Your task to perform on an android device: toggle javascript in the chrome app Image 0: 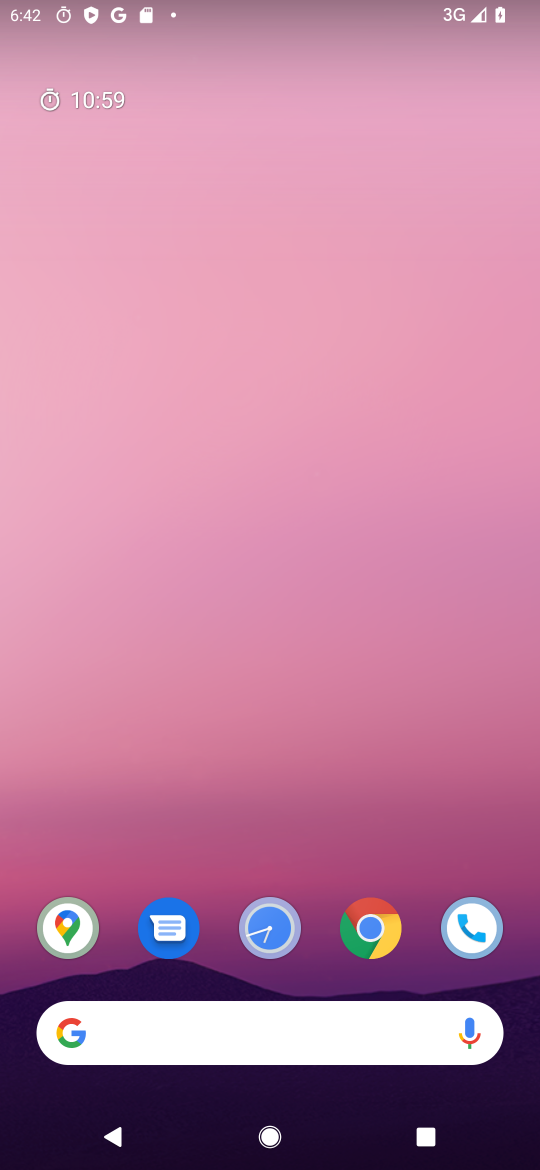
Step 0: drag from (318, 770) to (333, 124)
Your task to perform on an android device: toggle javascript in the chrome app Image 1: 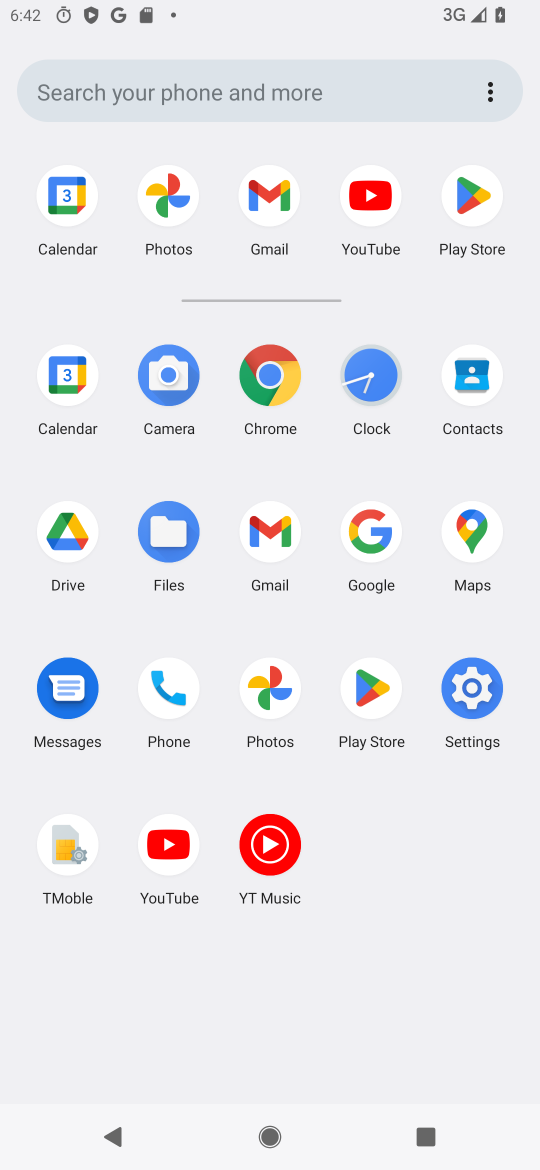
Step 1: click (277, 373)
Your task to perform on an android device: toggle javascript in the chrome app Image 2: 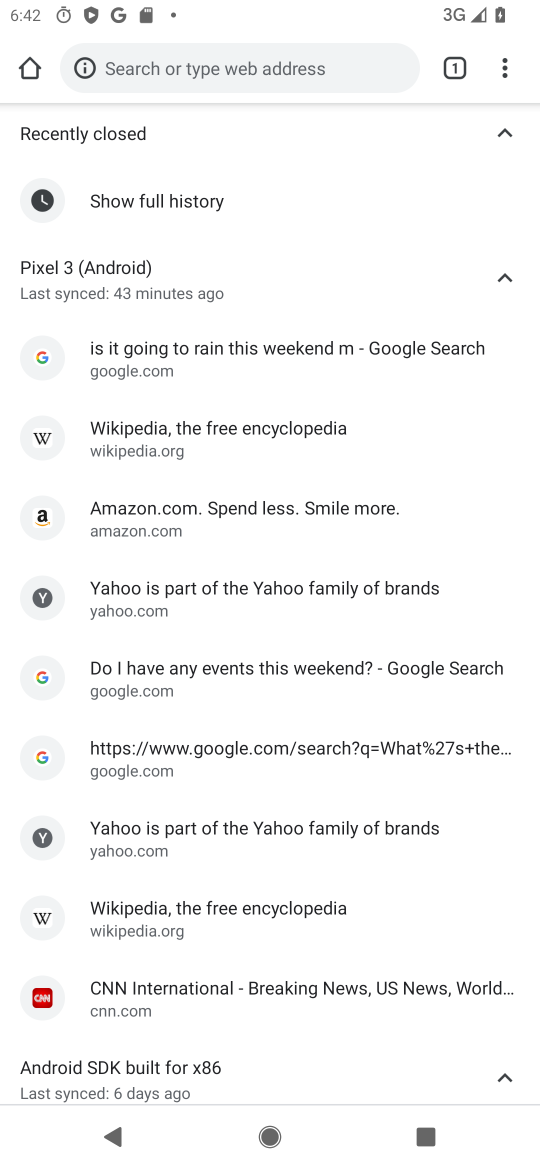
Step 2: click (504, 74)
Your task to perform on an android device: toggle javascript in the chrome app Image 3: 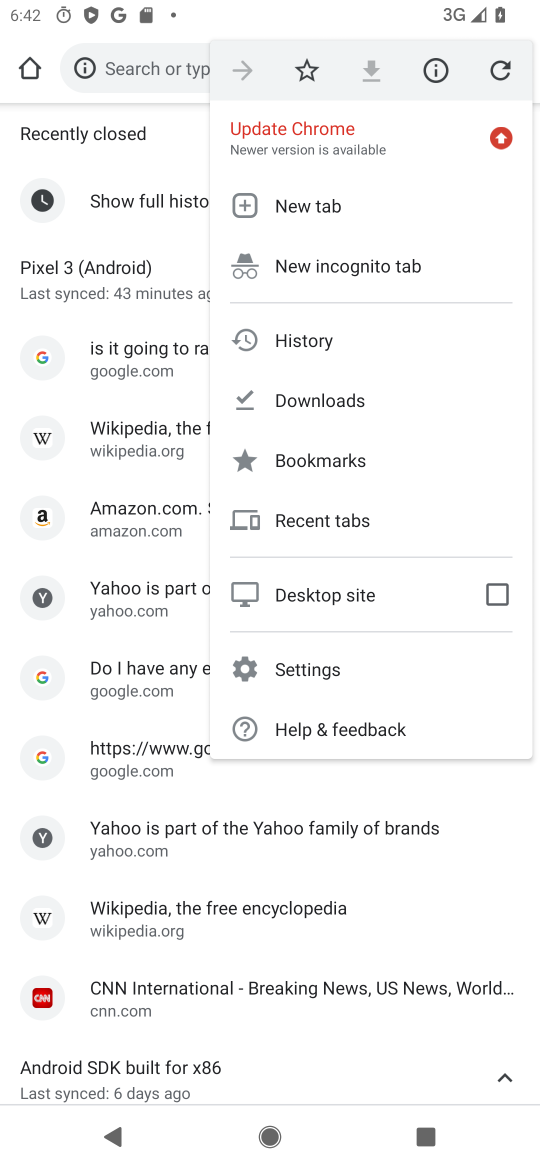
Step 3: click (341, 676)
Your task to perform on an android device: toggle javascript in the chrome app Image 4: 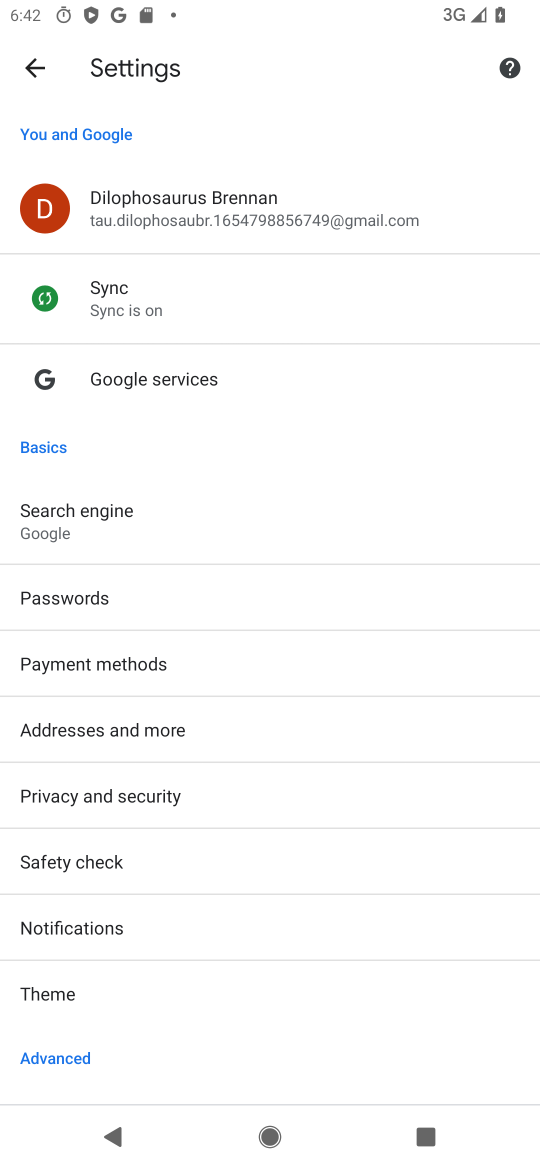
Step 4: drag from (368, 785) to (382, 699)
Your task to perform on an android device: toggle javascript in the chrome app Image 5: 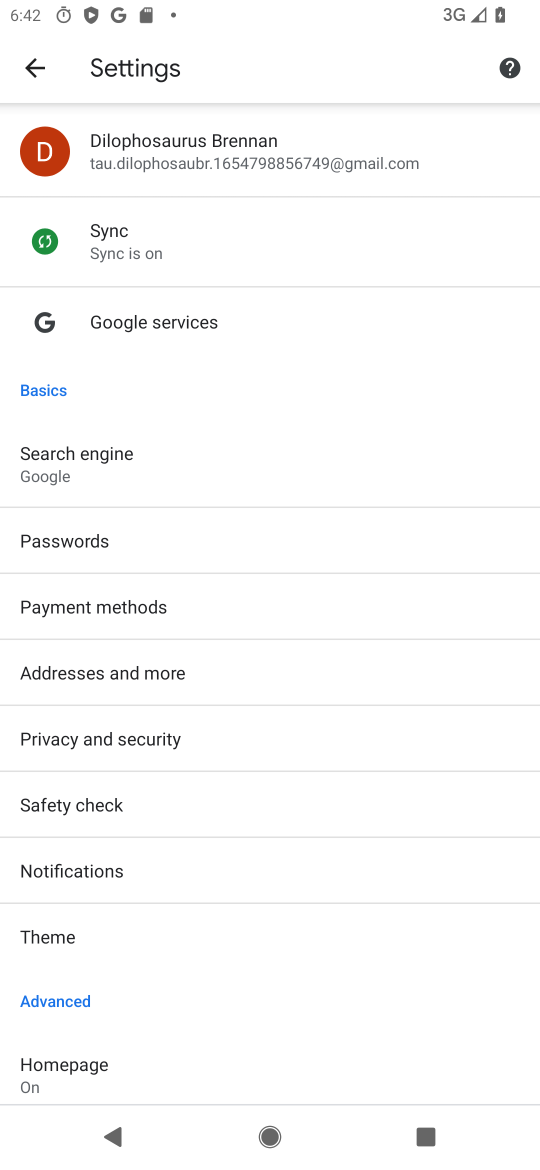
Step 5: drag from (379, 897) to (396, 729)
Your task to perform on an android device: toggle javascript in the chrome app Image 6: 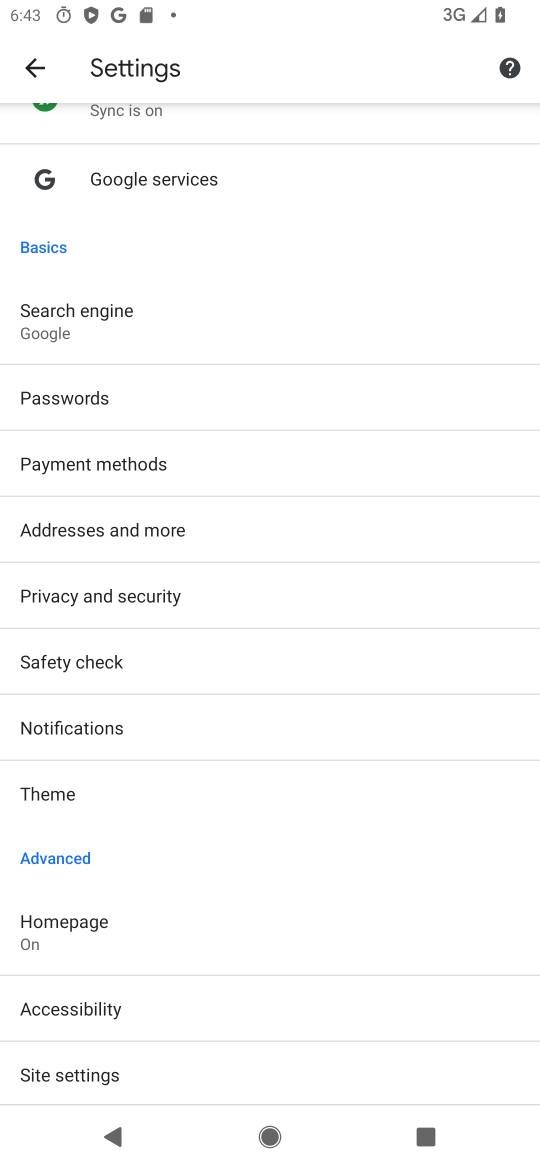
Step 6: drag from (379, 904) to (395, 682)
Your task to perform on an android device: toggle javascript in the chrome app Image 7: 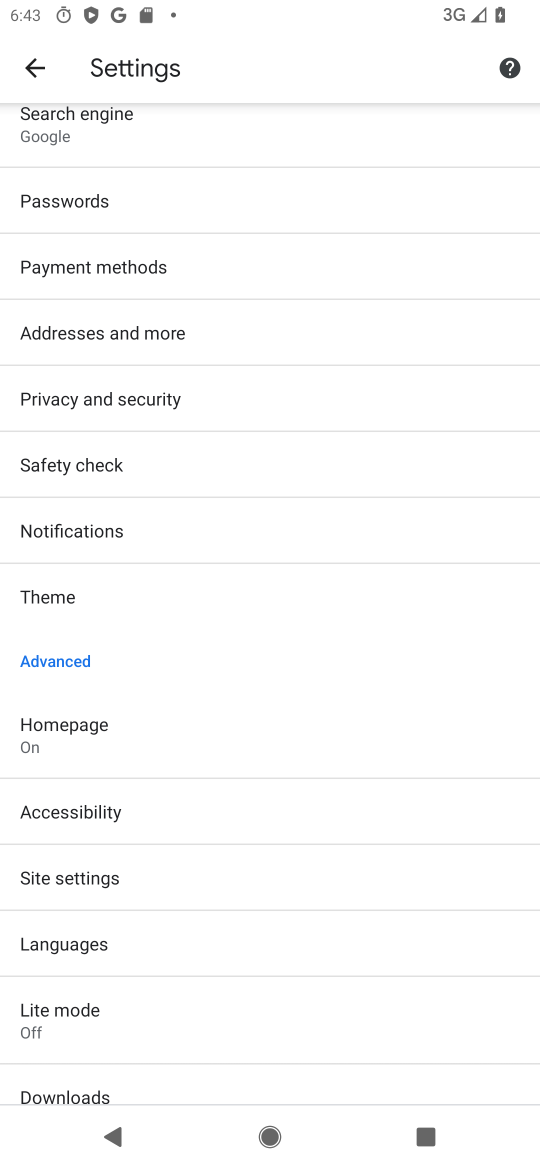
Step 7: drag from (380, 916) to (398, 730)
Your task to perform on an android device: toggle javascript in the chrome app Image 8: 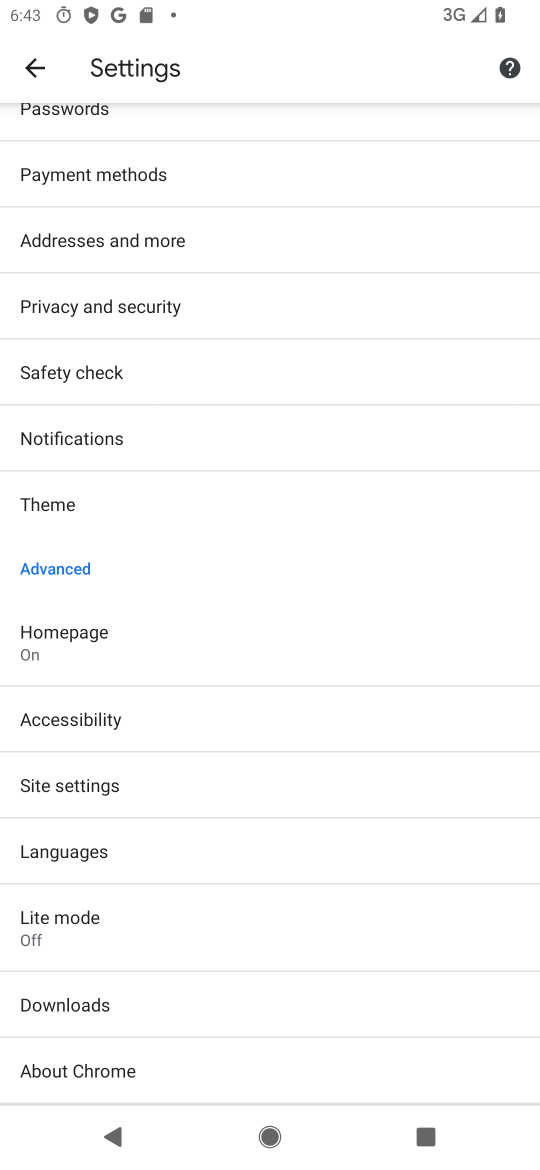
Step 8: click (313, 792)
Your task to perform on an android device: toggle javascript in the chrome app Image 9: 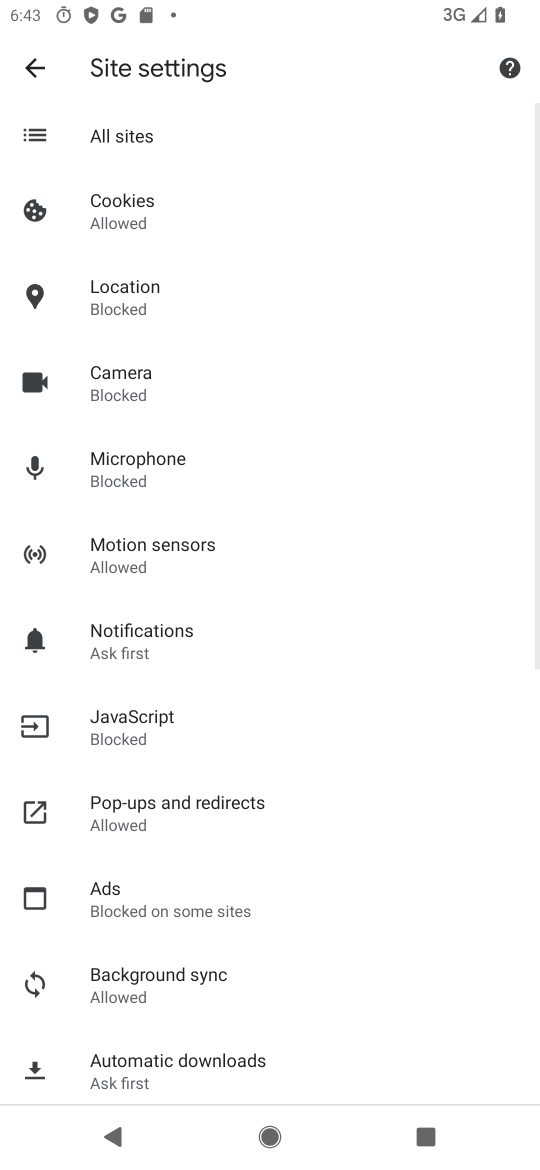
Step 9: drag from (389, 864) to (408, 677)
Your task to perform on an android device: toggle javascript in the chrome app Image 10: 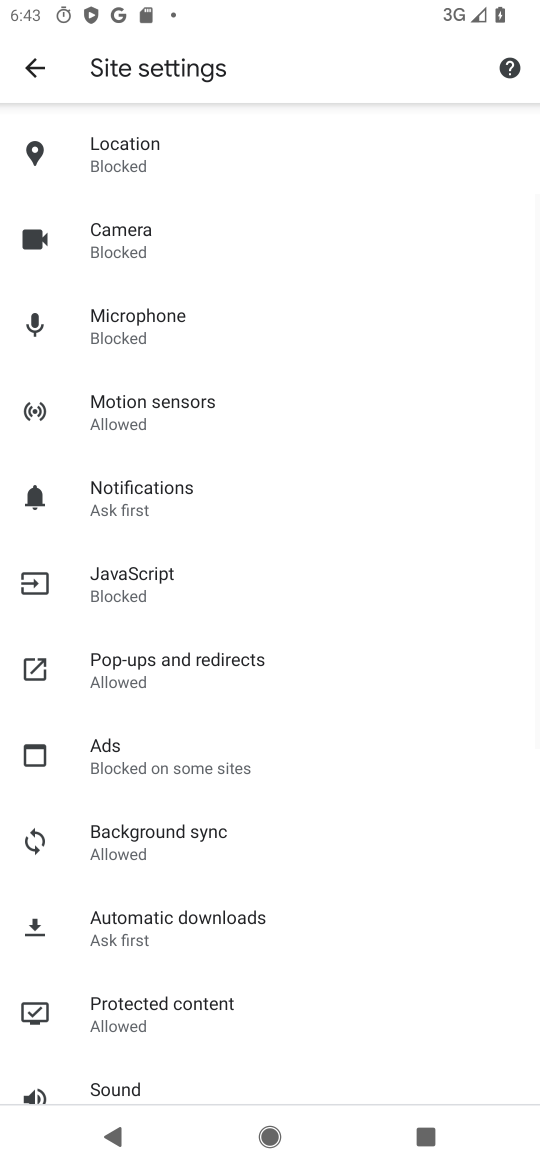
Step 10: drag from (380, 872) to (403, 732)
Your task to perform on an android device: toggle javascript in the chrome app Image 11: 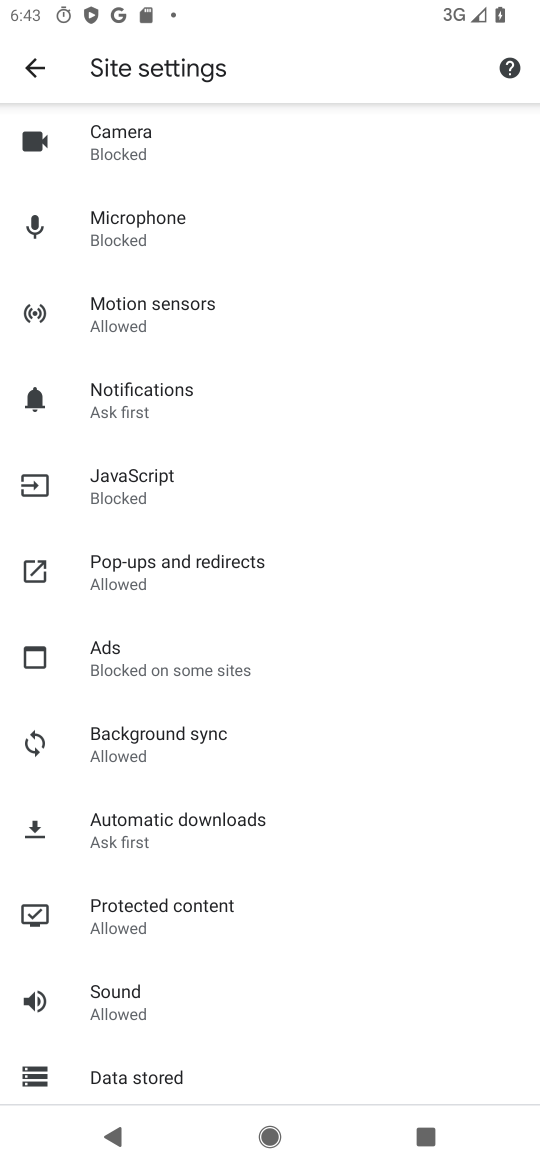
Step 11: drag from (416, 919) to (448, 642)
Your task to perform on an android device: toggle javascript in the chrome app Image 12: 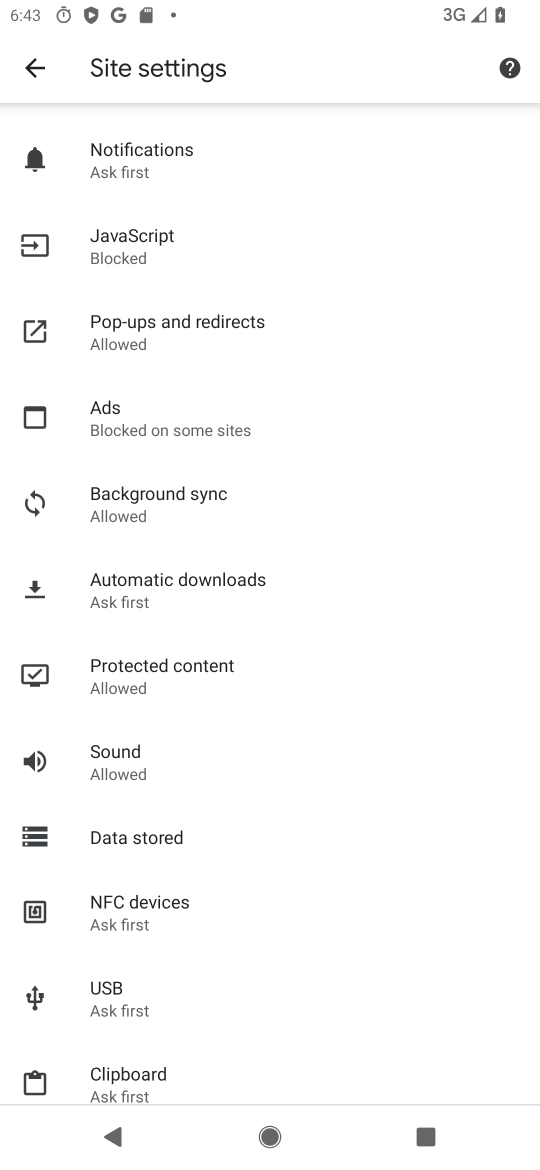
Step 12: click (181, 245)
Your task to perform on an android device: toggle javascript in the chrome app Image 13: 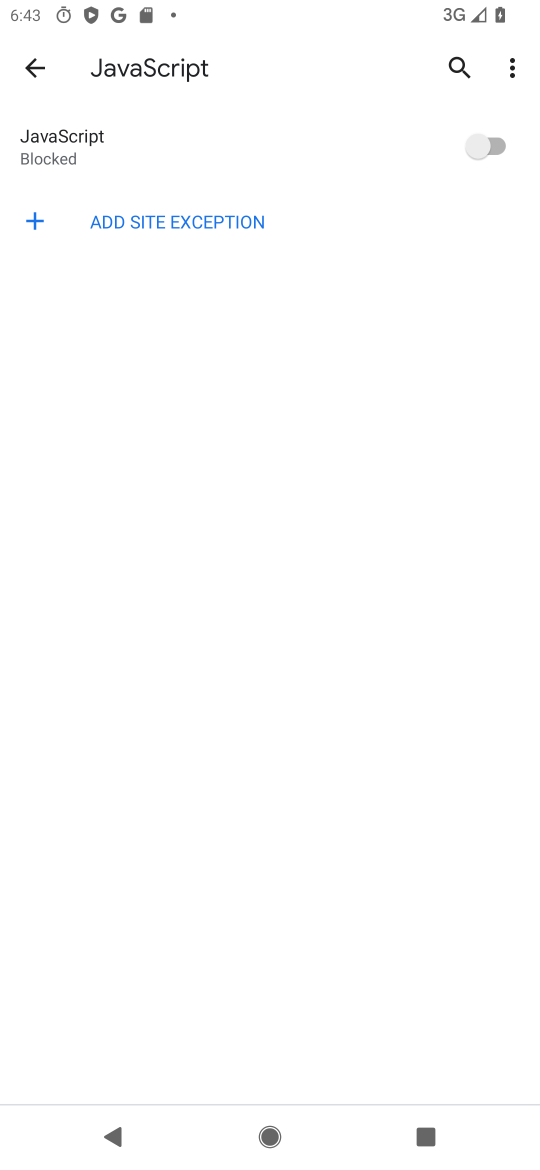
Step 13: click (483, 145)
Your task to perform on an android device: toggle javascript in the chrome app Image 14: 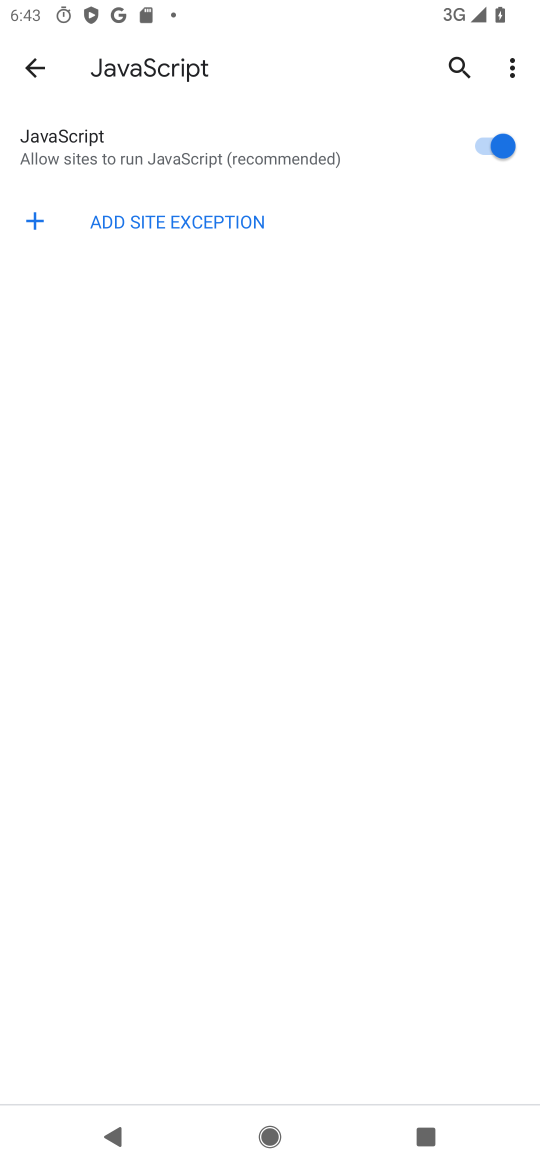
Step 14: task complete